Your task to perform on an android device: toggle pop-ups in chrome Image 0: 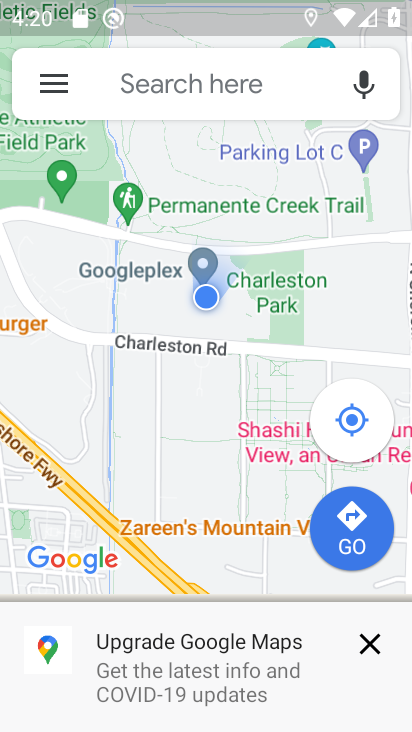
Step 0: press home button
Your task to perform on an android device: toggle pop-ups in chrome Image 1: 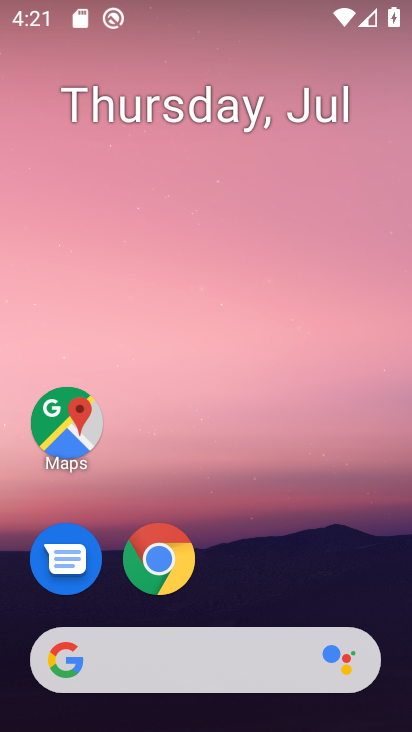
Step 1: click (155, 581)
Your task to perform on an android device: toggle pop-ups in chrome Image 2: 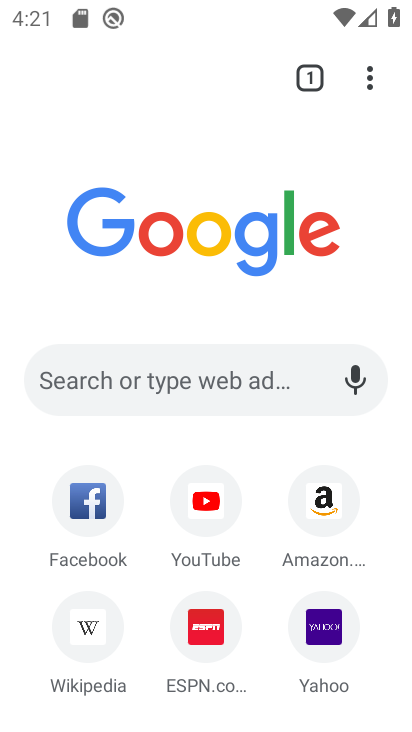
Step 2: click (373, 80)
Your task to perform on an android device: toggle pop-ups in chrome Image 3: 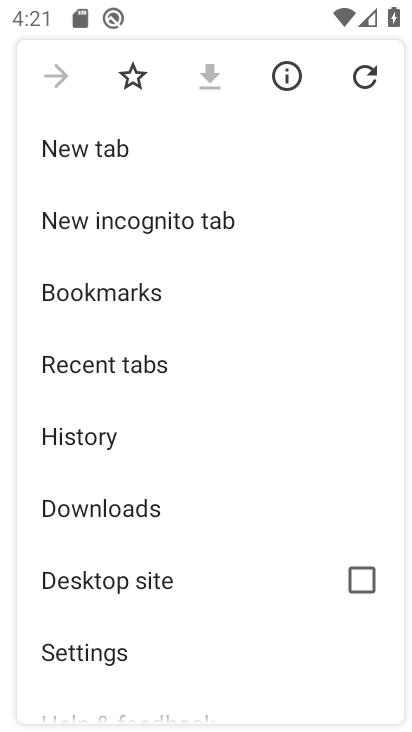
Step 3: drag from (195, 580) to (215, 240)
Your task to perform on an android device: toggle pop-ups in chrome Image 4: 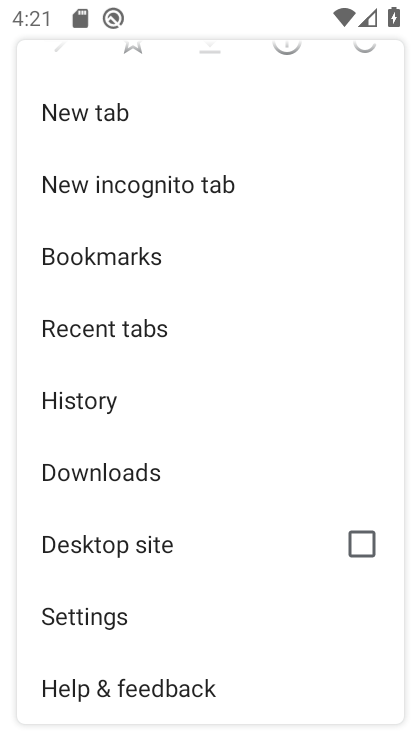
Step 4: click (107, 615)
Your task to perform on an android device: toggle pop-ups in chrome Image 5: 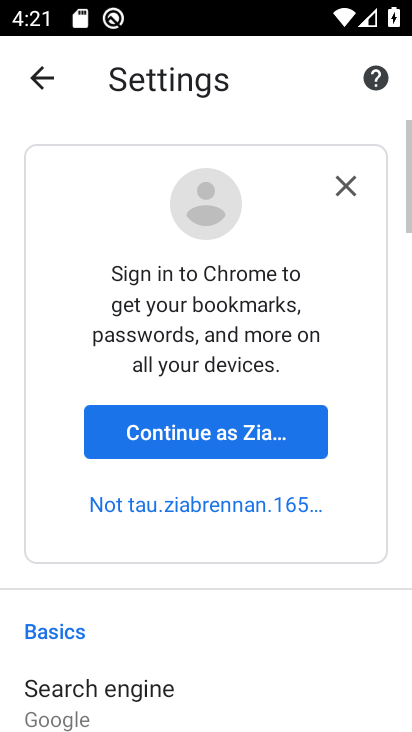
Step 5: drag from (185, 592) to (295, 326)
Your task to perform on an android device: toggle pop-ups in chrome Image 6: 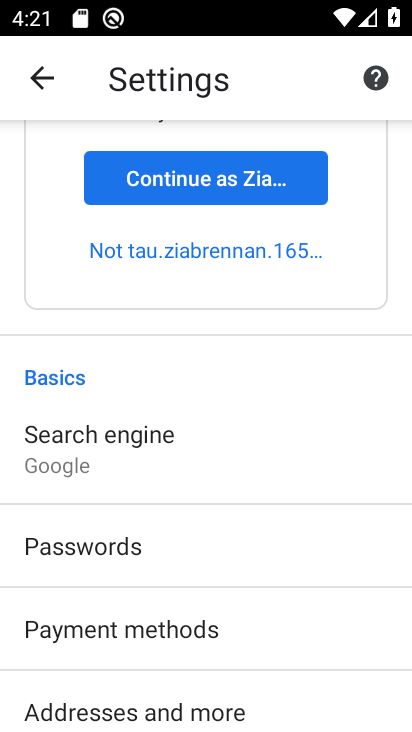
Step 6: drag from (238, 589) to (267, 321)
Your task to perform on an android device: toggle pop-ups in chrome Image 7: 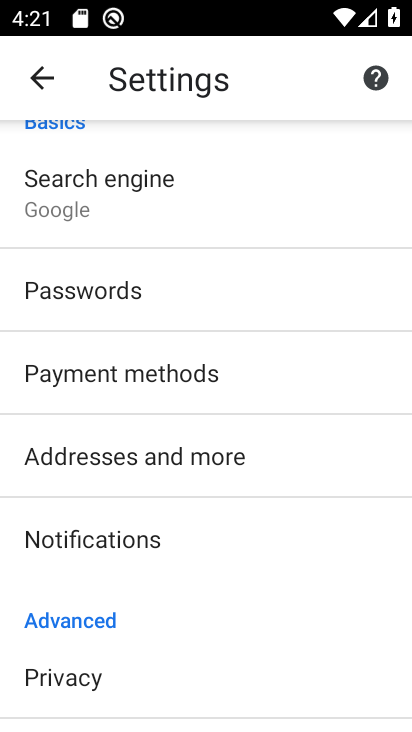
Step 7: drag from (229, 563) to (246, 306)
Your task to perform on an android device: toggle pop-ups in chrome Image 8: 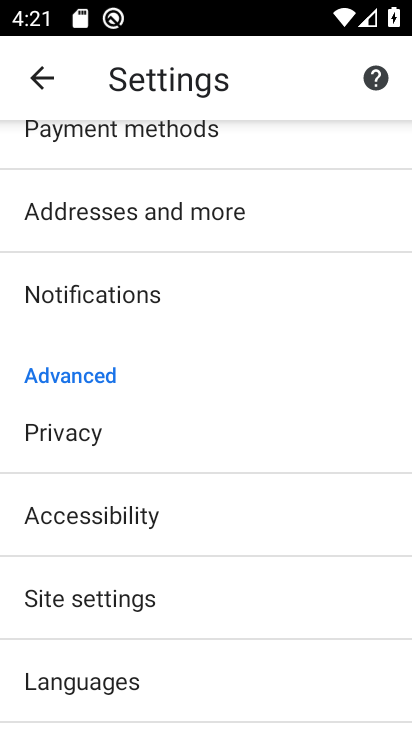
Step 8: drag from (196, 589) to (244, 300)
Your task to perform on an android device: toggle pop-ups in chrome Image 9: 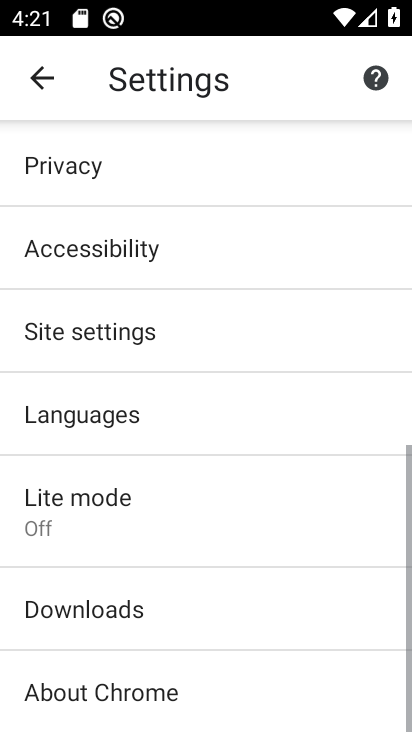
Step 9: click (127, 338)
Your task to perform on an android device: toggle pop-ups in chrome Image 10: 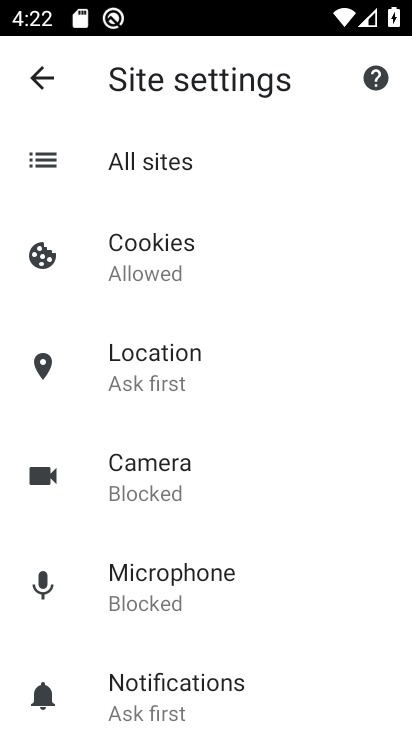
Step 10: drag from (200, 547) to (250, 345)
Your task to perform on an android device: toggle pop-ups in chrome Image 11: 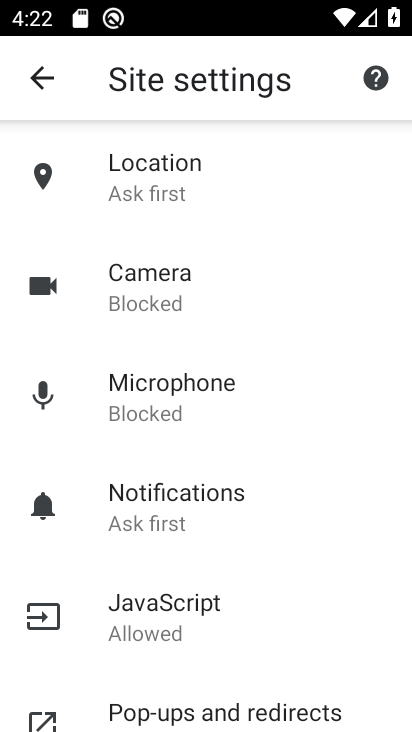
Step 11: click (204, 714)
Your task to perform on an android device: toggle pop-ups in chrome Image 12: 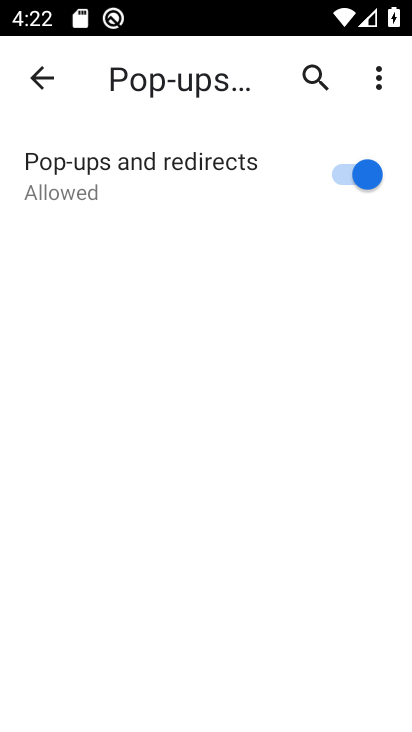
Step 12: click (346, 192)
Your task to perform on an android device: toggle pop-ups in chrome Image 13: 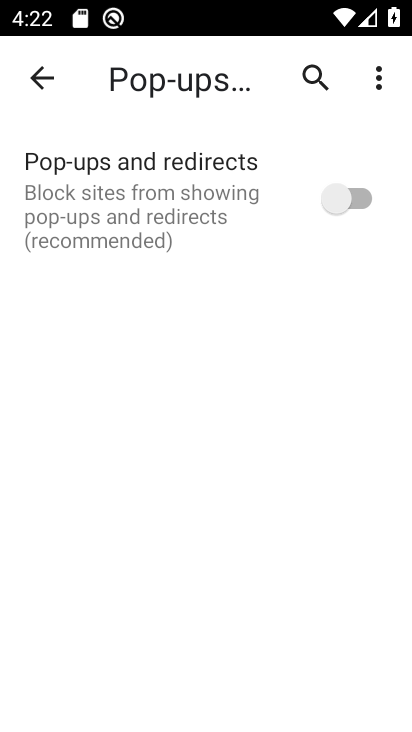
Step 13: task complete